Your task to perform on an android device: Search for pizza restaurants on Maps Image 0: 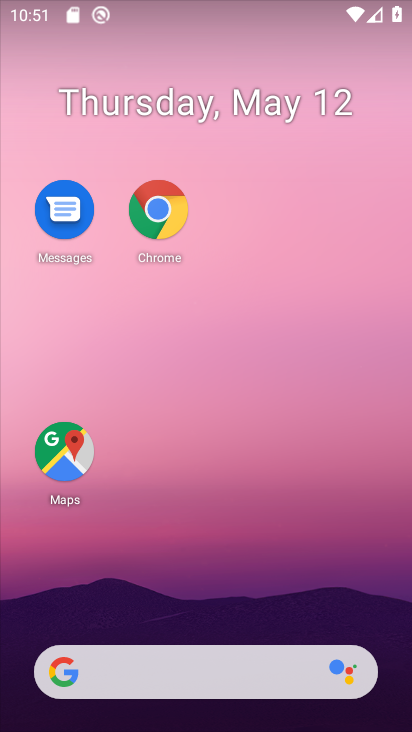
Step 0: click (187, 674)
Your task to perform on an android device: Search for pizza restaurants on Maps Image 1: 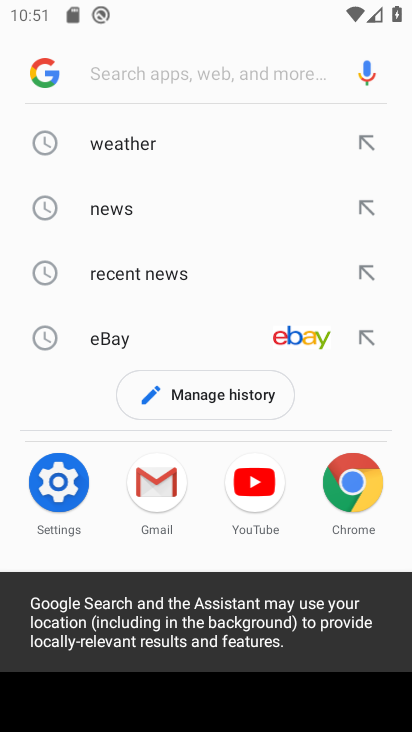
Step 1: click (137, 80)
Your task to perform on an android device: Search for pizza restaurants on Maps Image 2: 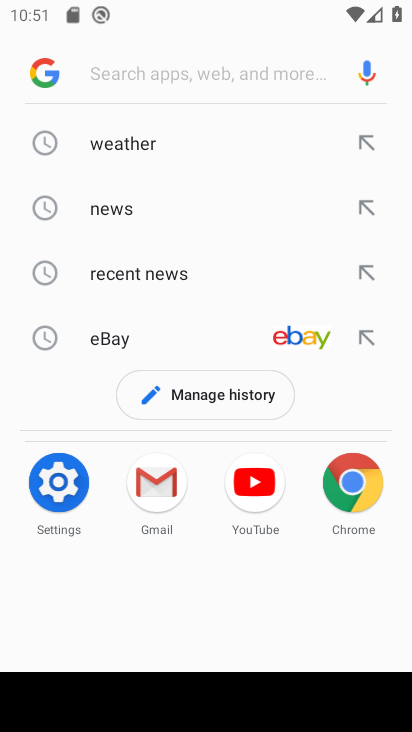
Step 2: type "pizza restaurants"
Your task to perform on an android device: Search for pizza restaurants on Maps Image 3: 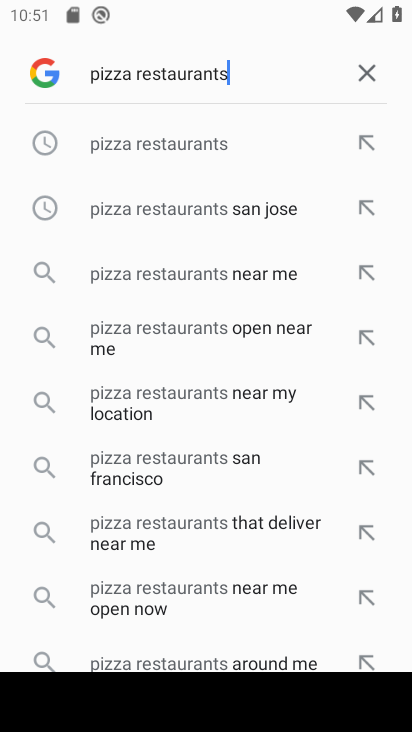
Step 3: click (206, 151)
Your task to perform on an android device: Search for pizza restaurants on Maps Image 4: 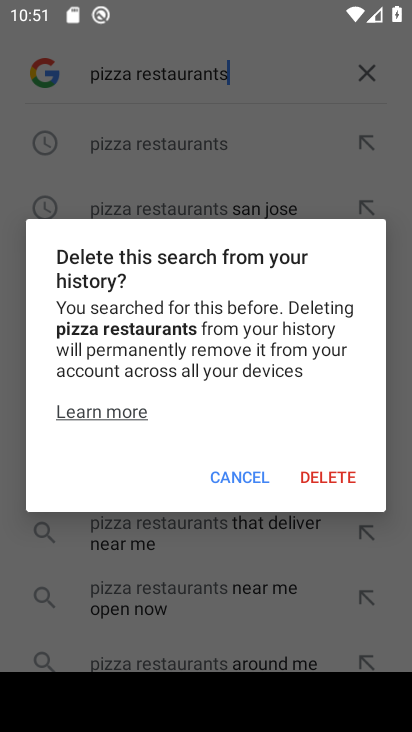
Step 4: click (265, 483)
Your task to perform on an android device: Search for pizza restaurants on Maps Image 5: 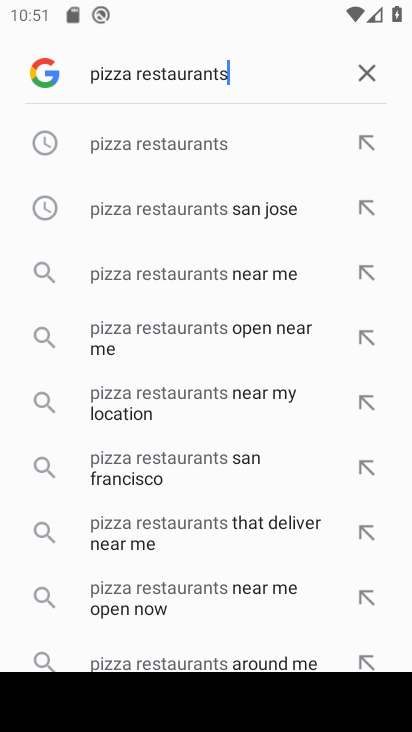
Step 5: click (185, 134)
Your task to perform on an android device: Search for pizza restaurants on Maps Image 6: 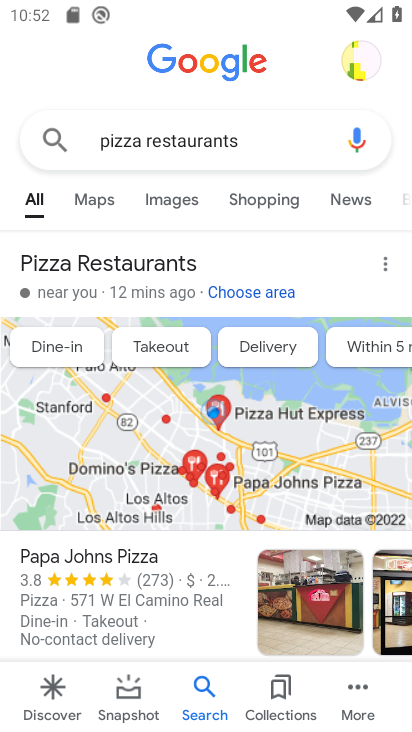
Step 6: task complete